Your task to perform on an android device: open chrome privacy settings Image 0: 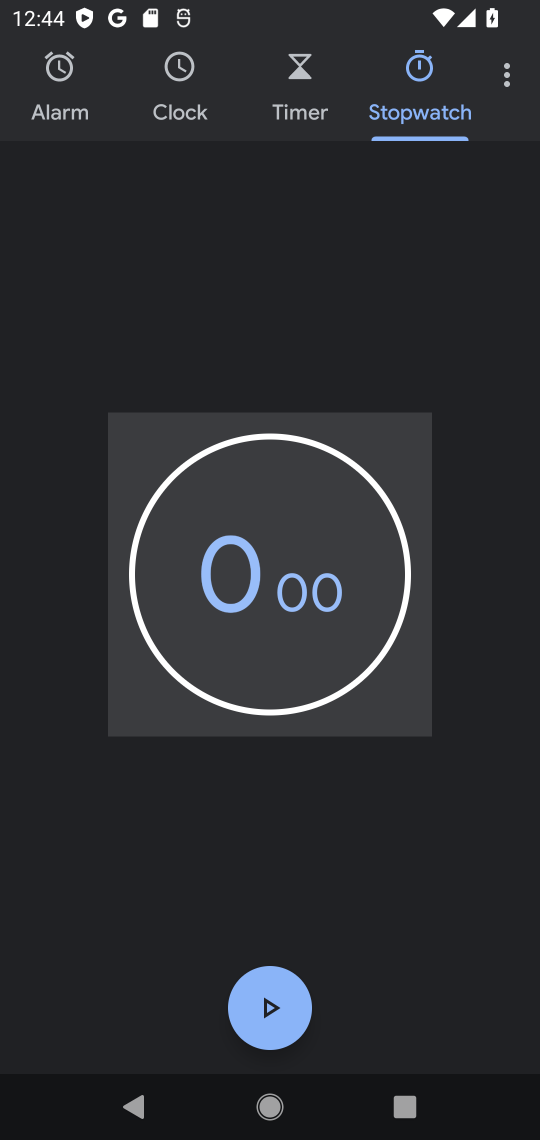
Step 0: click (503, 88)
Your task to perform on an android device: open chrome privacy settings Image 1: 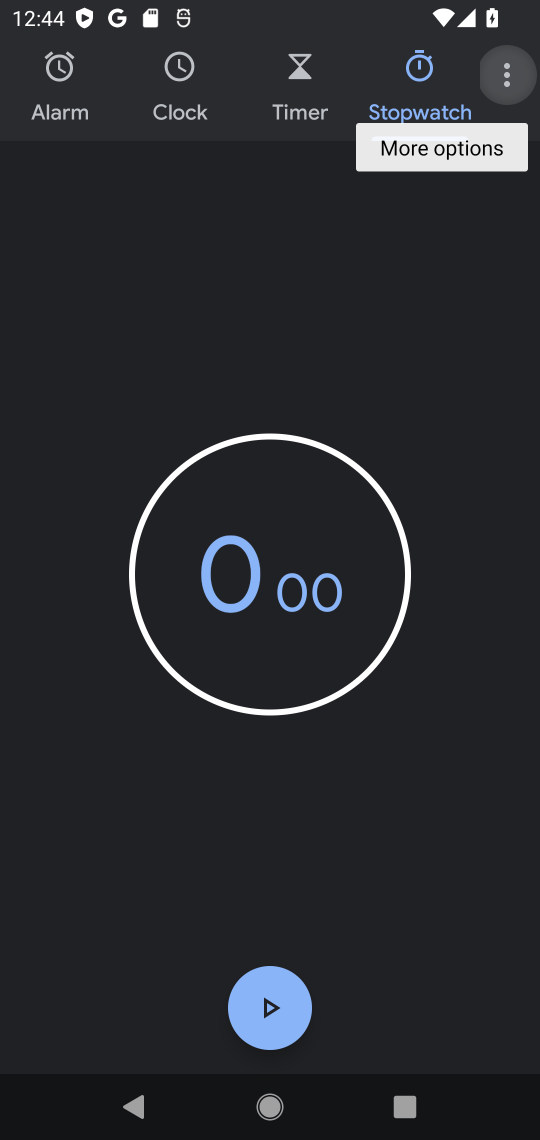
Step 1: click (503, 87)
Your task to perform on an android device: open chrome privacy settings Image 2: 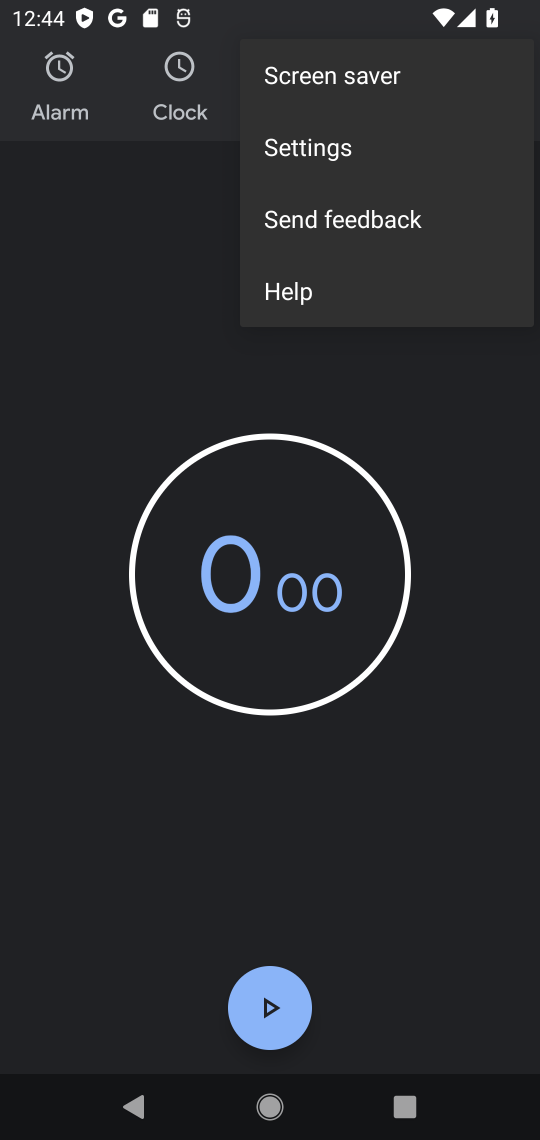
Step 2: click (365, 142)
Your task to perform on an android device: open chrome privacy settings Image 3: 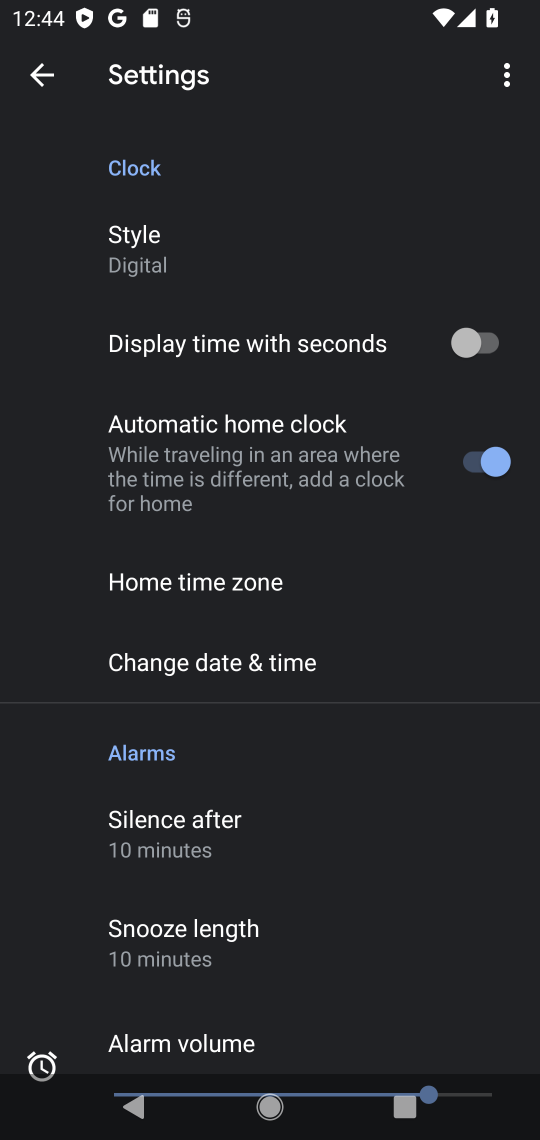
Step 3: drag from (176, 970) to (225, 229)
Your task to perform on an android device: open chrome privacy settings Image 4: 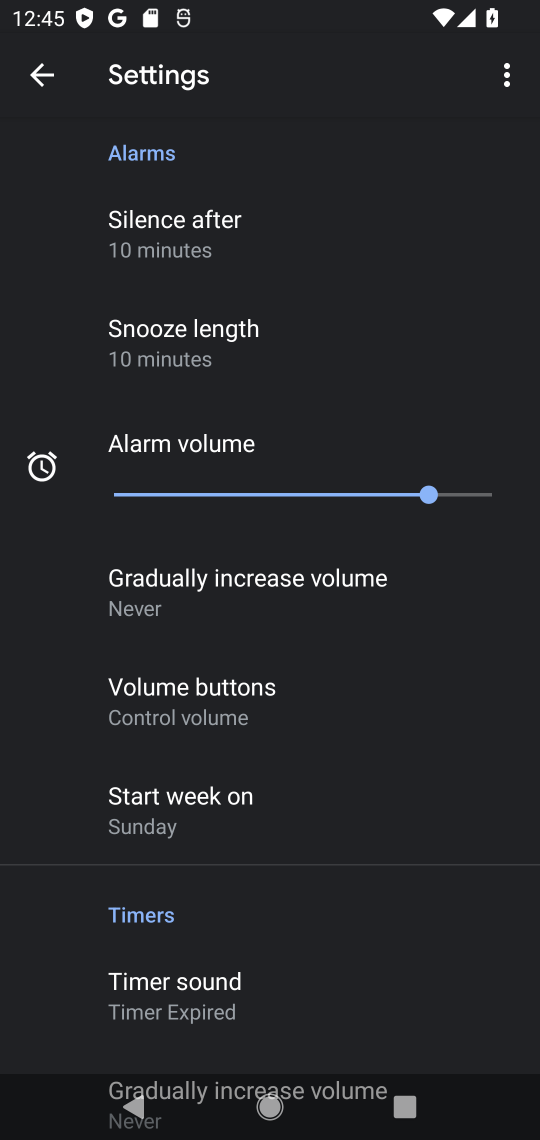
Step 4: drag from (208, 960) to (284, 141)
Your task to perform on an android device: open chrome privacy settings Image 5: 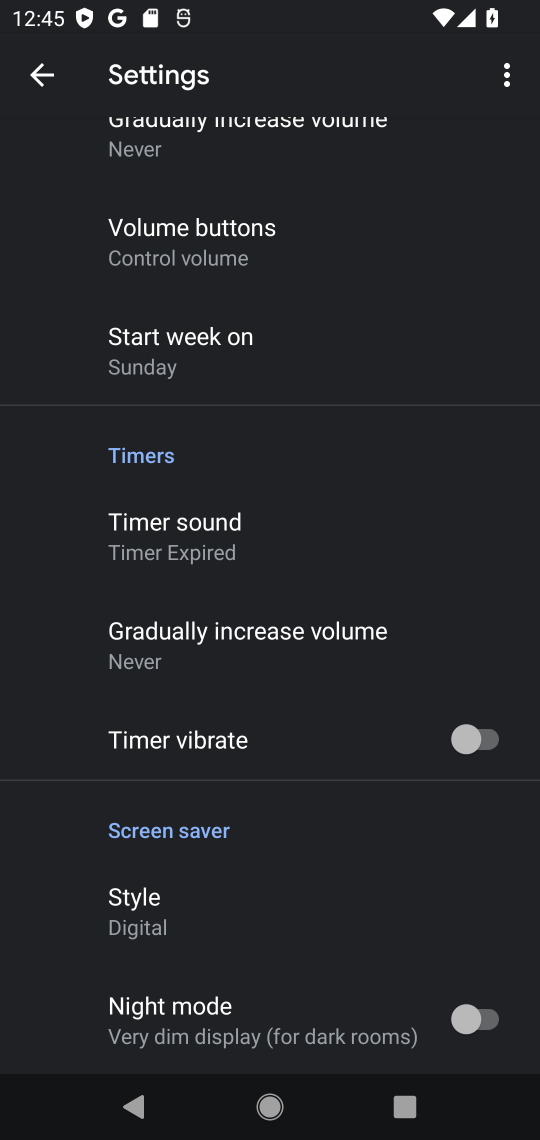
Step 5: drag from (274, 455) to (341, 1038)
Your task to perform on an android device: open chrome privacy settings Image 6: 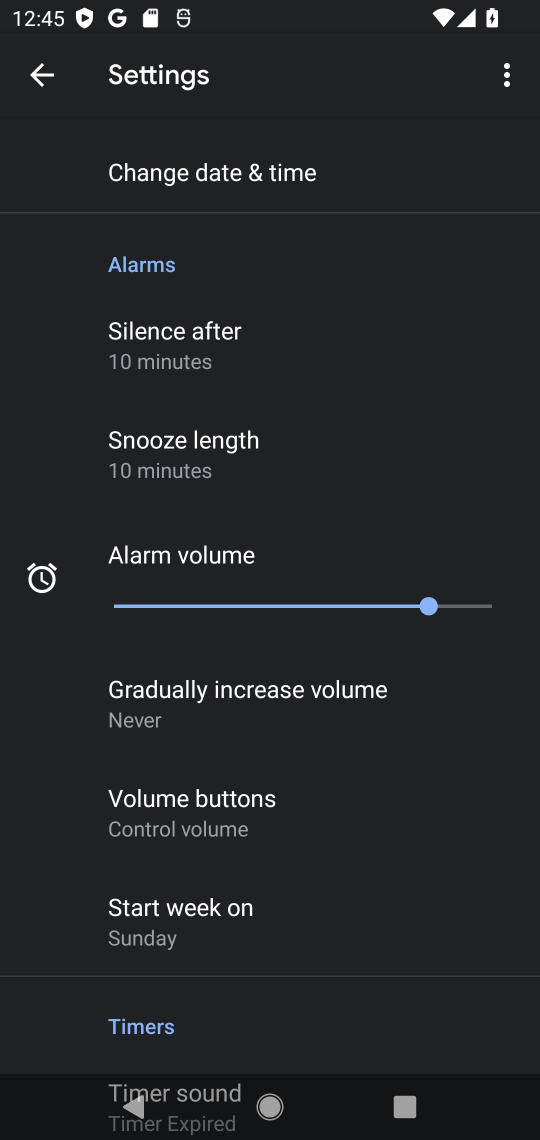
Step 6: drag from (131, 245) to (269, 1056)
Your task to perform on an android device: open chrome privacy settings Image 7: 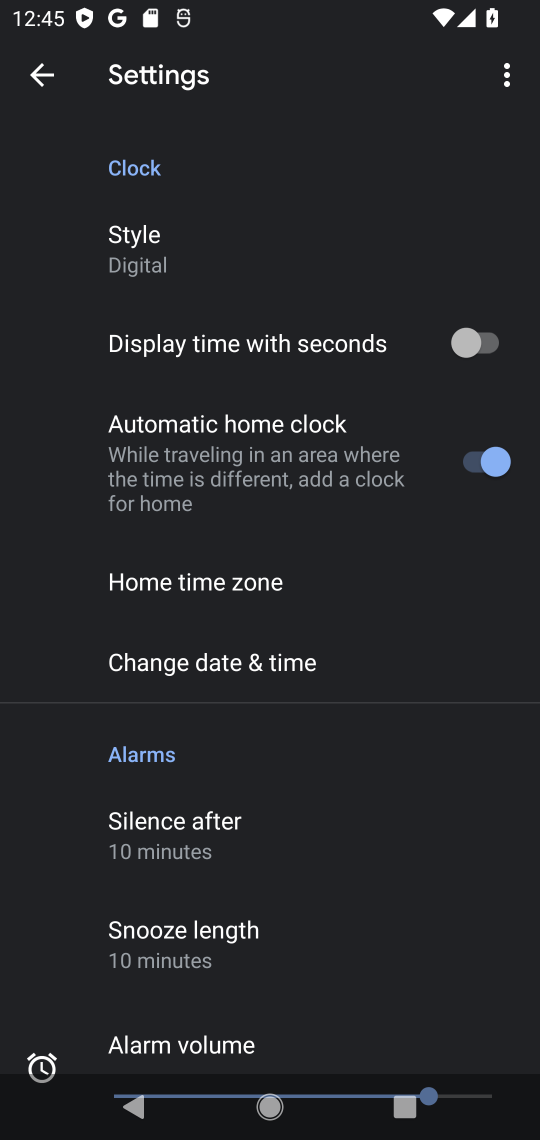
Step 7: drag from (228, 881) to (232, 94)
Your task to perform on an android device: open chrome privacy settings Image 8: 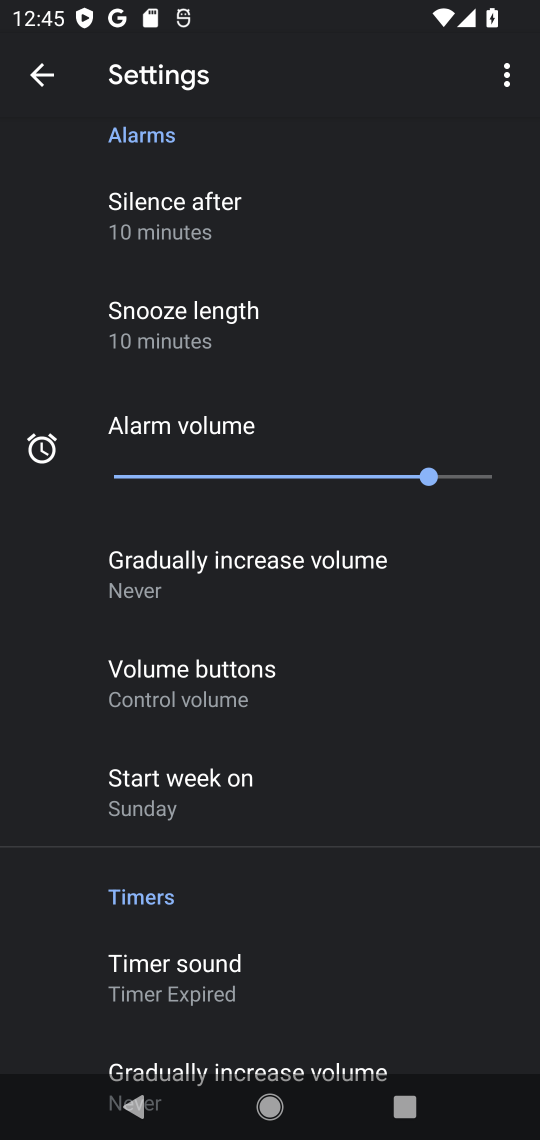
Step 8: click (255, 8)
Your task to perform on an android device: open chrome privacy settings Image 9: 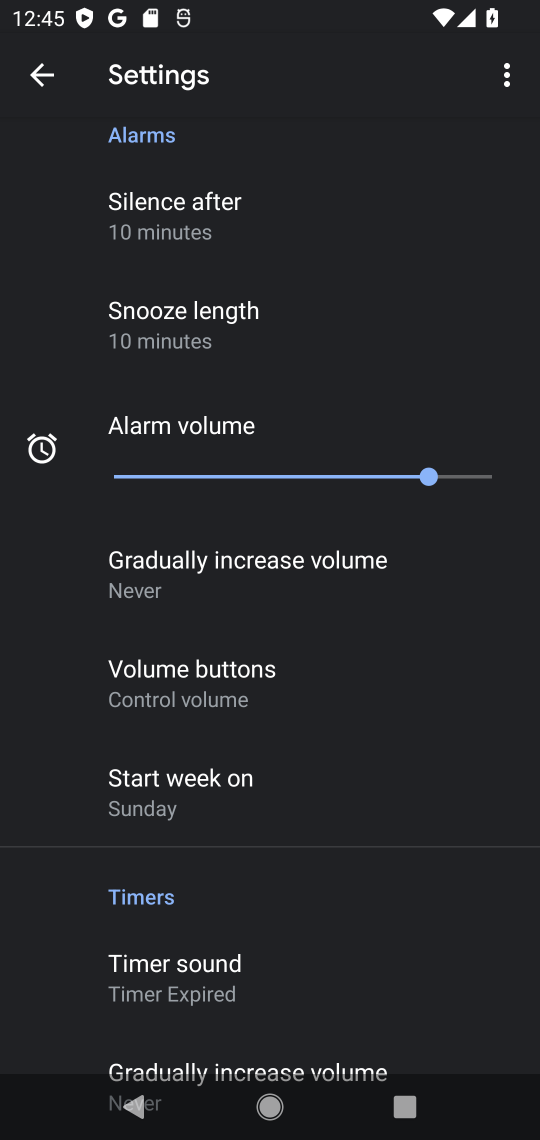
Step 9: click (43, 91)
Your task to perform on an android device: open chrome privacy settings Image 10: 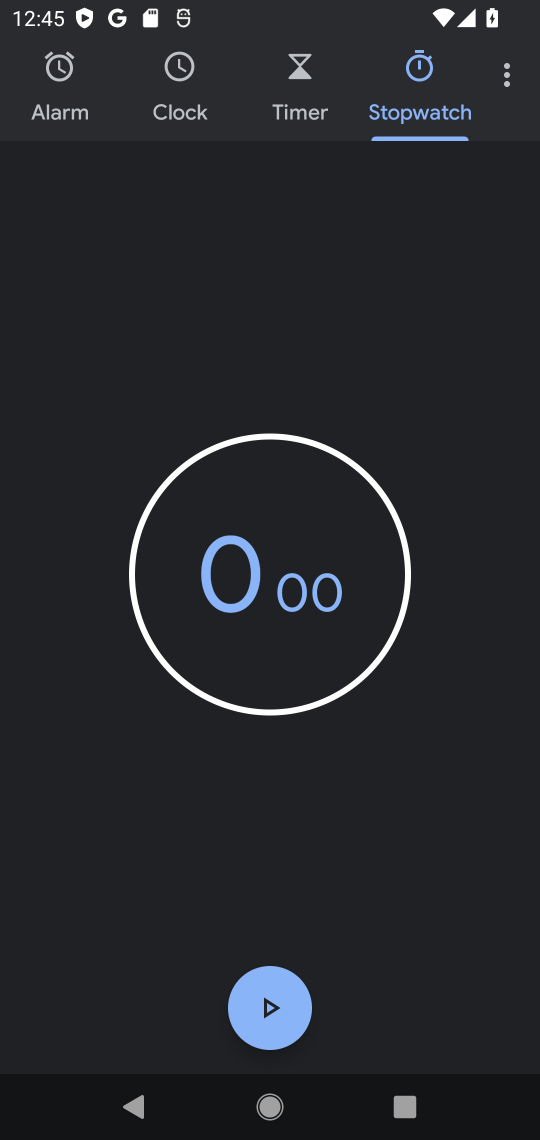
Step 10: press home button
Your task to perform on an android device: open chrome privacy settings Image 11: 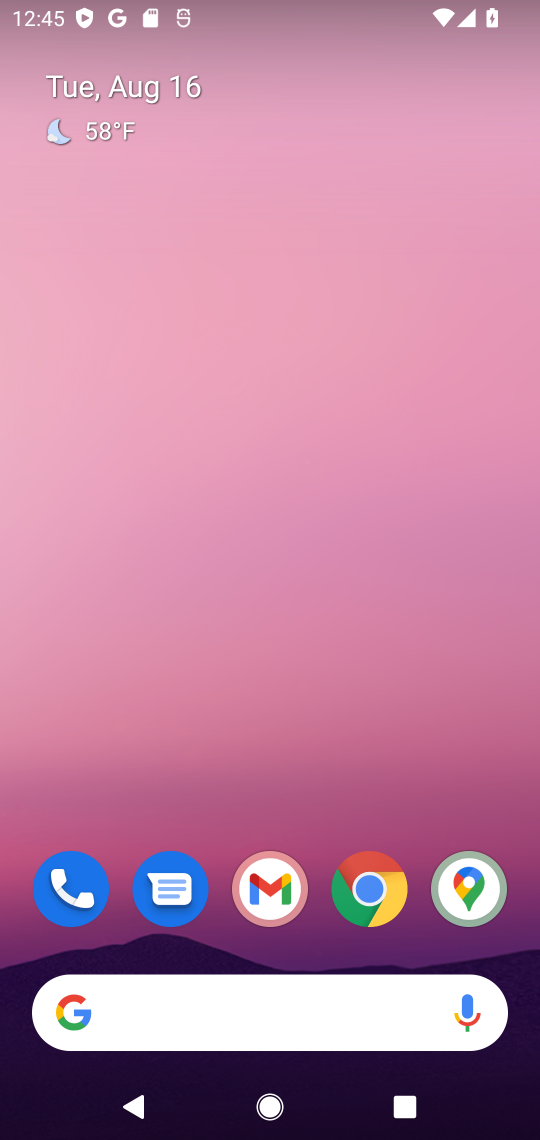
Step 11: drag from (309, 864) to (320, 0)
Your task to perform on an android device: open chrome privacy settings Image 12: 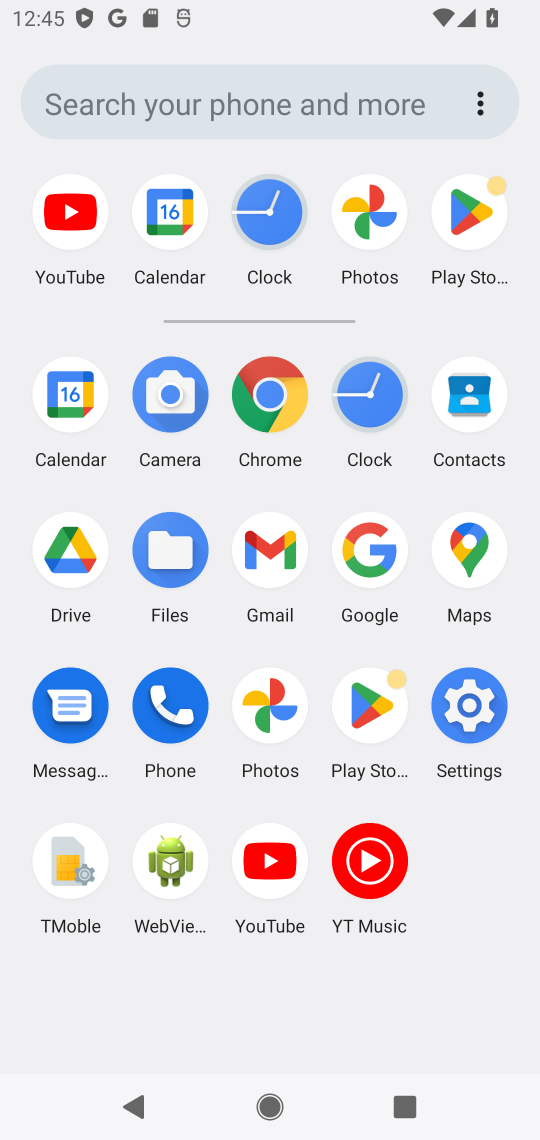
Step 12: click (473, 706)
Your task to perform on an android device: open chrome privacy settings Image 13: 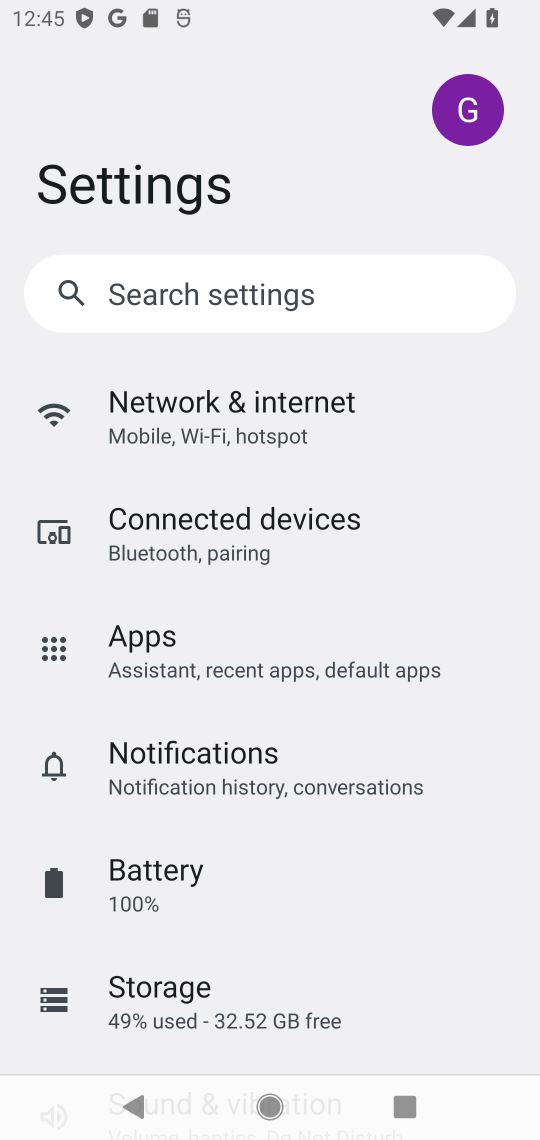
Step 13: drag from (172, 937) to (171, 293)
Your task to perform on an android device: open chrome privacy settings Image 14: 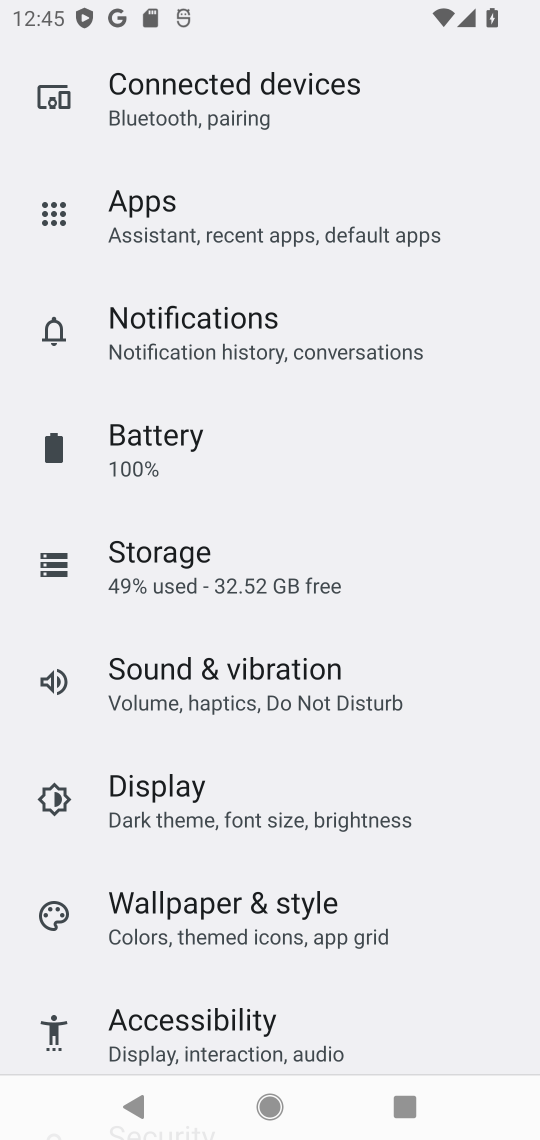
Step 14: drag from (197, 1060) to (146, 413)
Your task to perform on an android device: open chrome privacy settings Image 15: 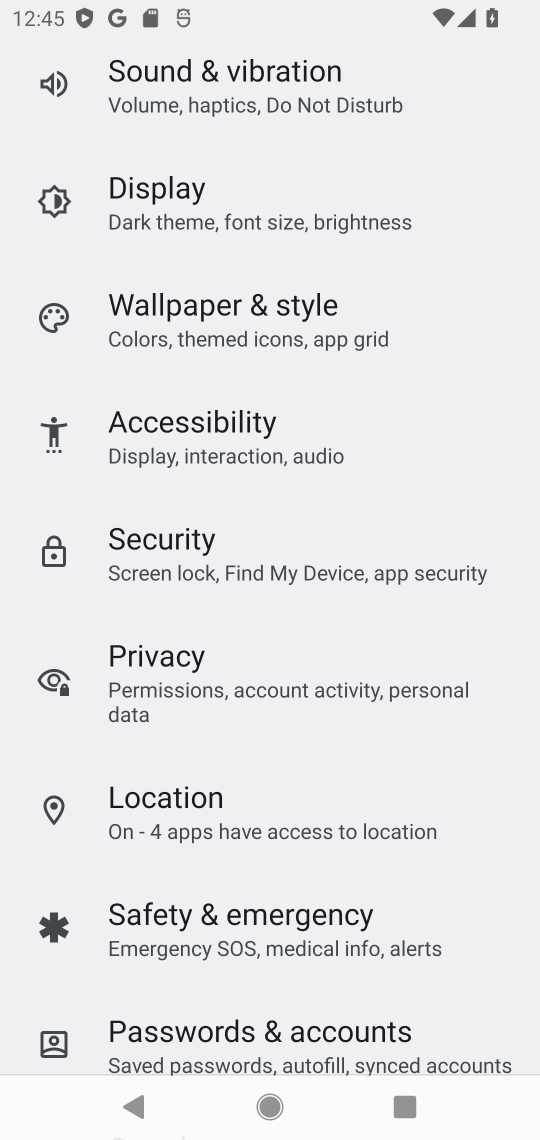
Step 15: drag from (215, 314) to (298, 1124)
Your task to perform on an android device: open chrome privacy settings Image 16: 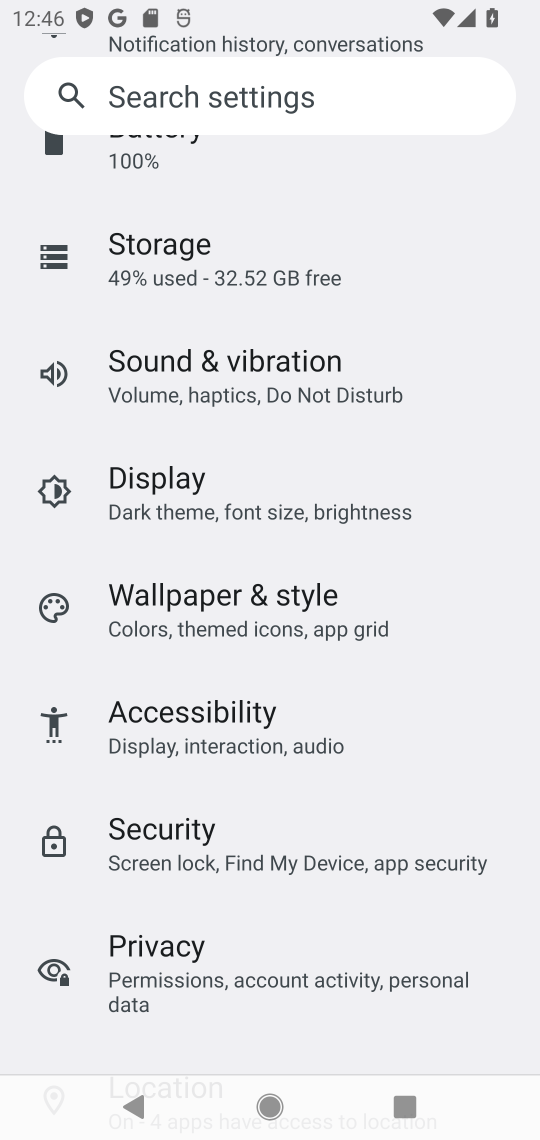
Step 16: drag from (205, 329) to (301, 939)
Your task to perform on an android device: open chrome privacy settings Image 17: 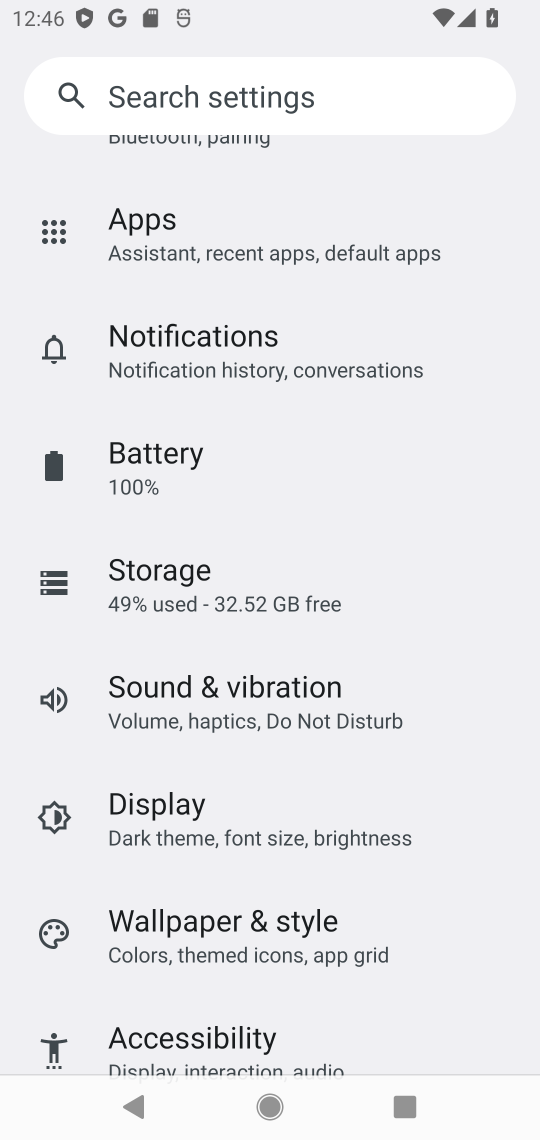
Step 17: drag from (220, 363) to (352, 1129)
Your task to perform on an android device: open chrome privacy settings Image 18: 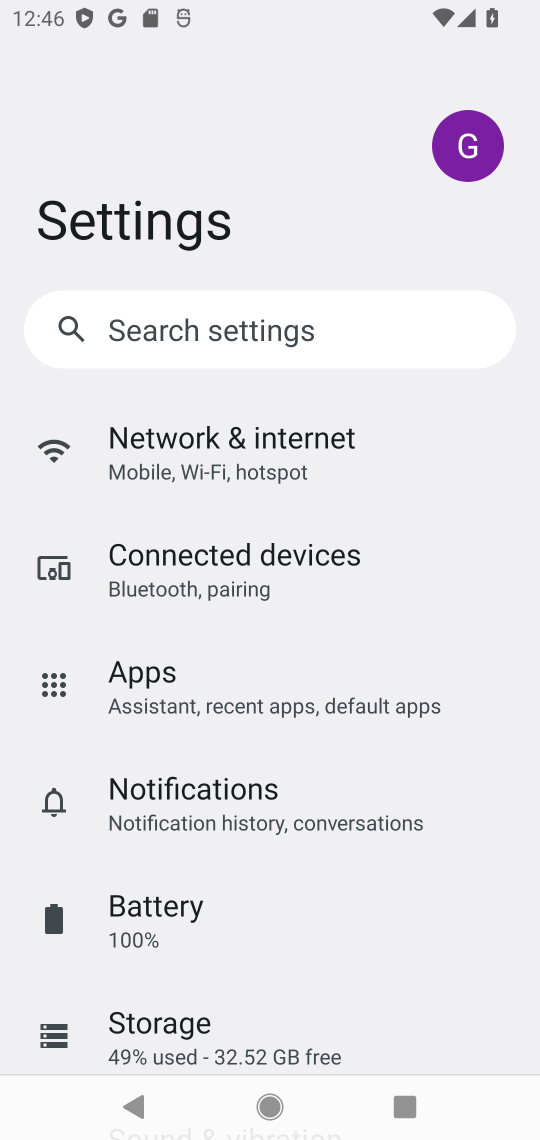
Step 18: drag from (213, 893) to (234, 299)
Your task to perform on an android device: open chrome privacy settings Image 19: 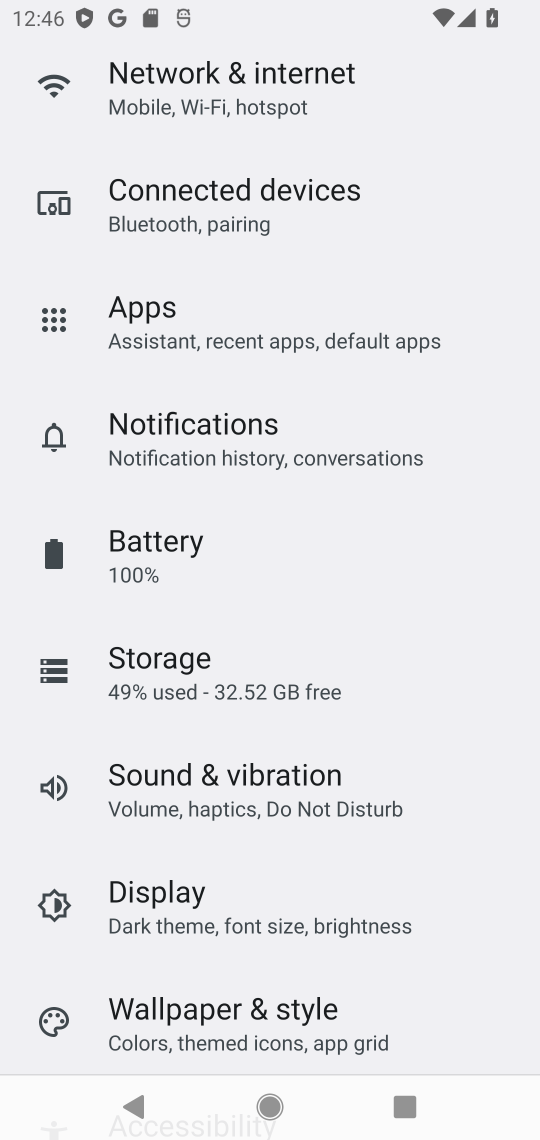
Step 19: drag from (232, 1030) to (345, 265)
Your task to perform on an android device: open chrome privacy settings Image 20: 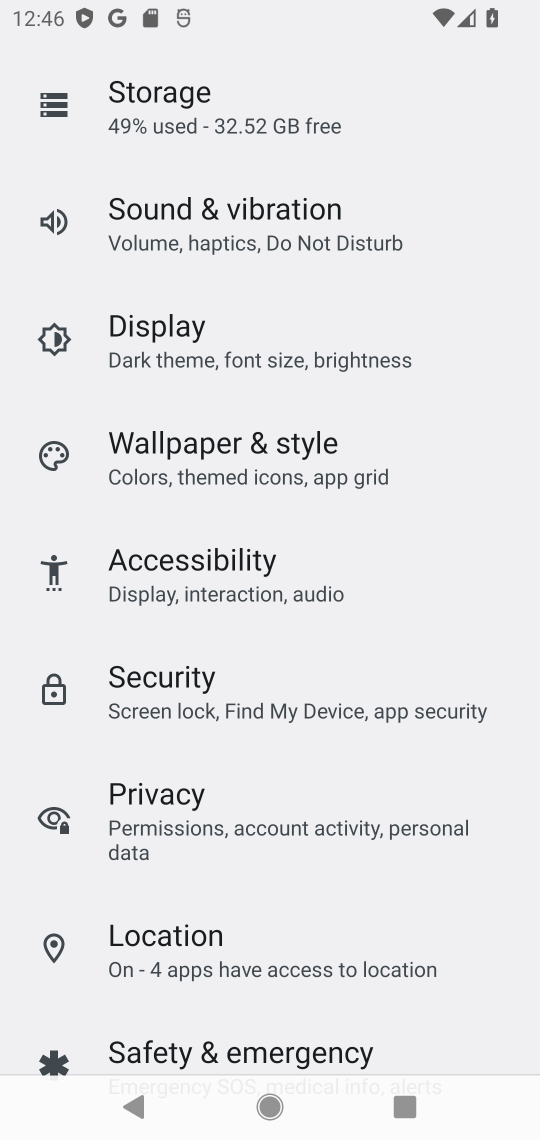
Step 20: click (218, 828)
Your task to perform on an android device: open chrome privacy settings Image 21: 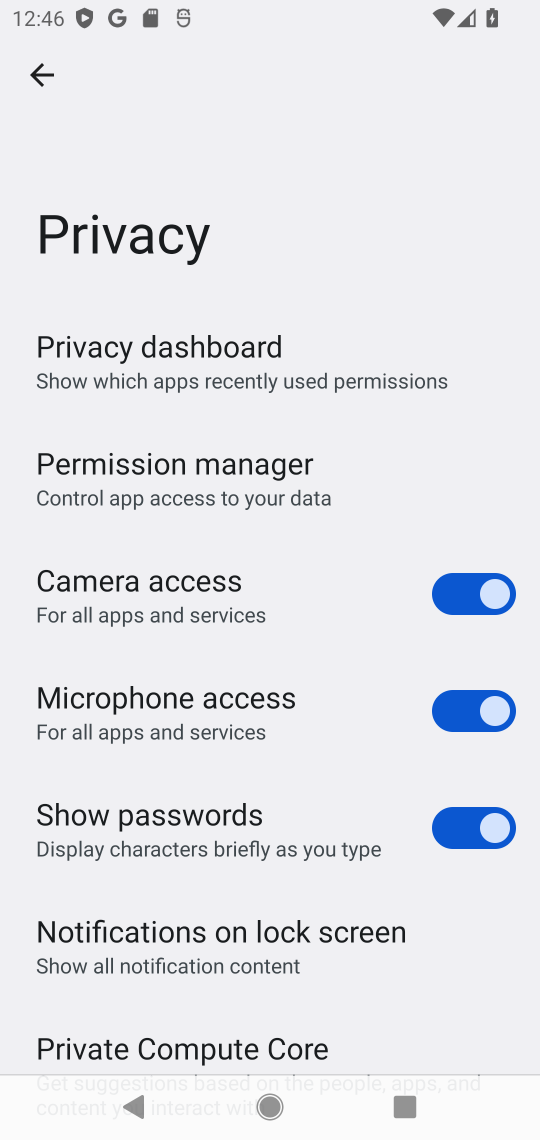
Step 21: task complete